Your task to perform on an android device: open a bookmark in the chrome app Image 0: 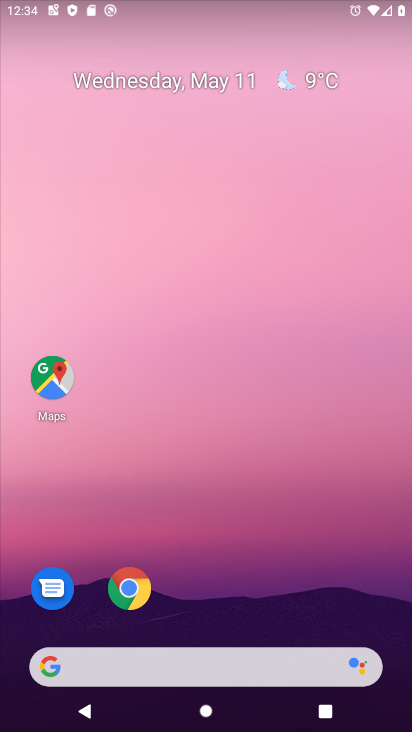
Step 0: click (136, 591)
Your task to perform on an android device: open a bookmark in the chrome app Image 1: 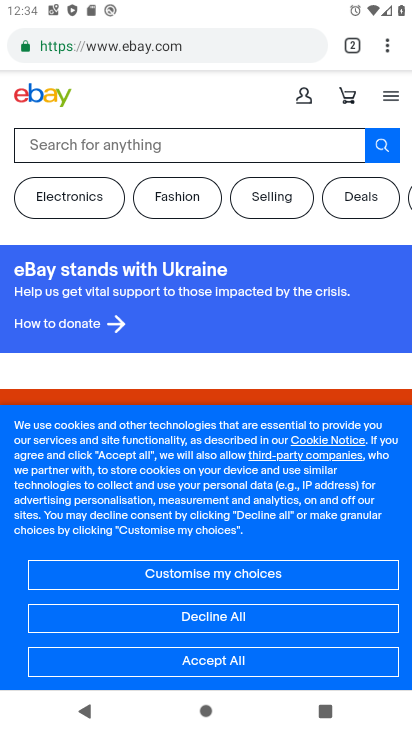
Step 1: drag from (388, 45) to (279, 161)
Your task to perform on an android device: open a bookmark in the chrome app Image 2: 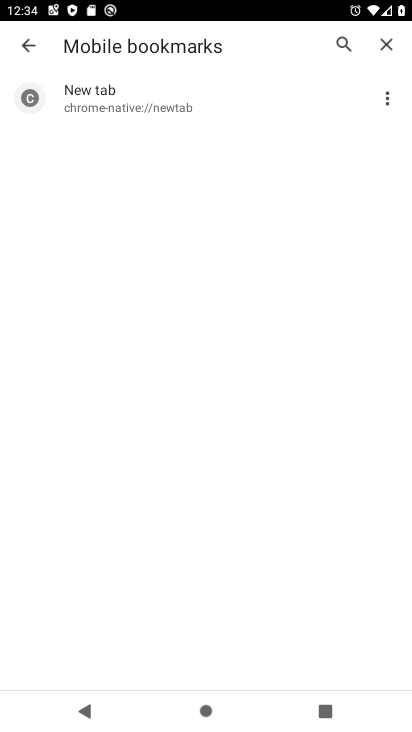
Step 2: click (107, 100)
Your task to perform on an android device: open a bookmark in the chrome app Image 3: 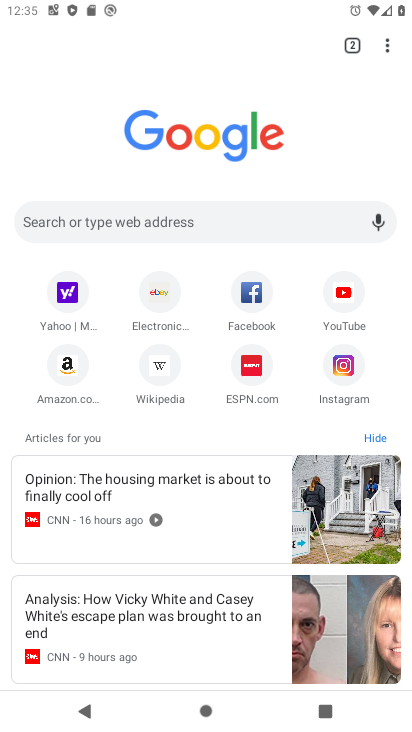
Step 3: task complete